Your task to perform on an android device: Go to Maps Image 0: 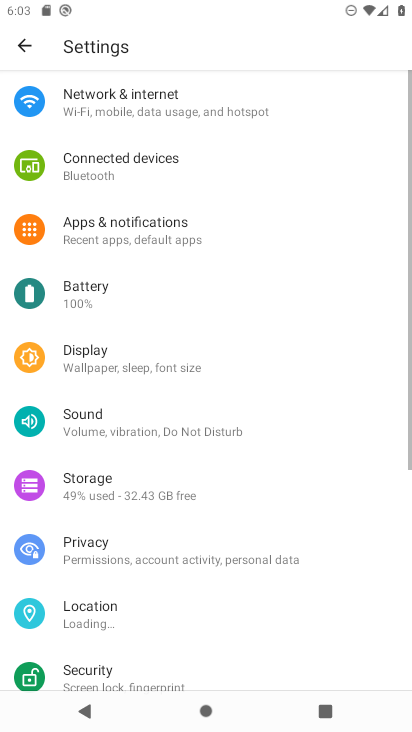
Step 0: press home button
Your task to perform on an android device: Go to Maps Image 1: 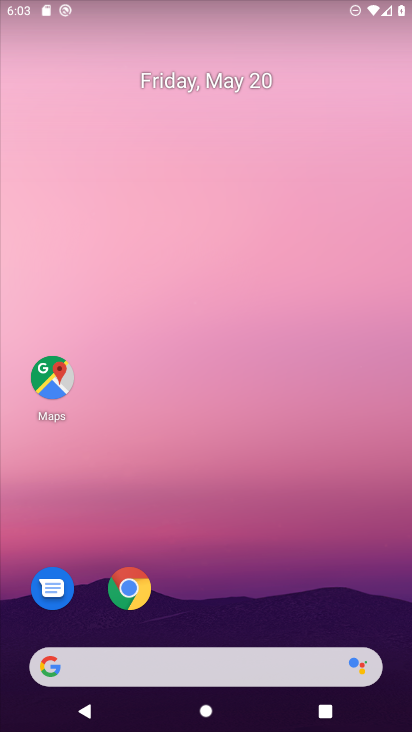
Step 1: click (43, 400)
Your task to perform on an android device: Go to Maps Image 2: 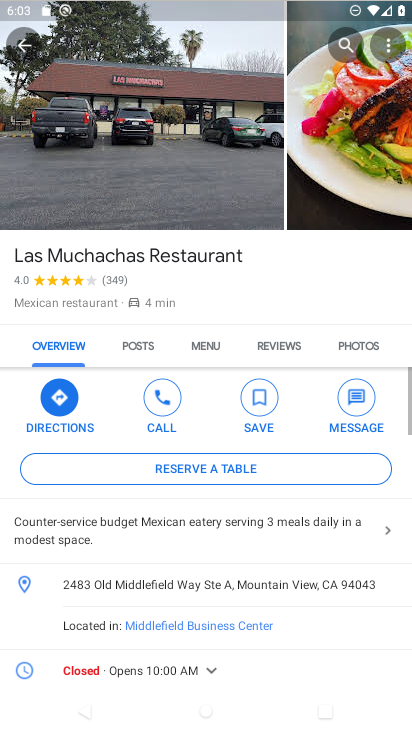
Step 2: task complete